Your task to perform on an android device: Go to internet settings Image 0: 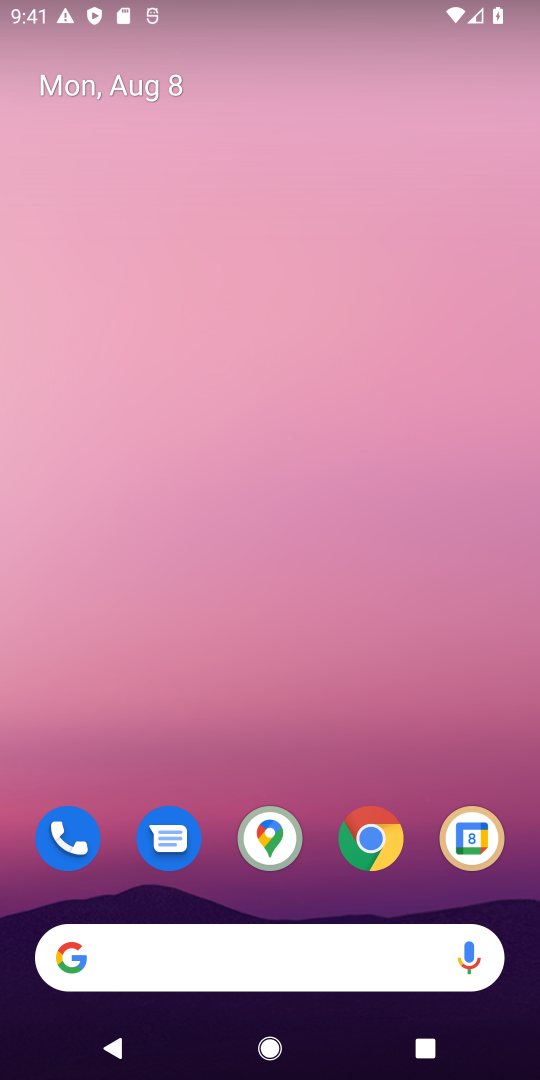
Step 0: press home button
Your task to perform on an android device: Go to internet settings Image 1: 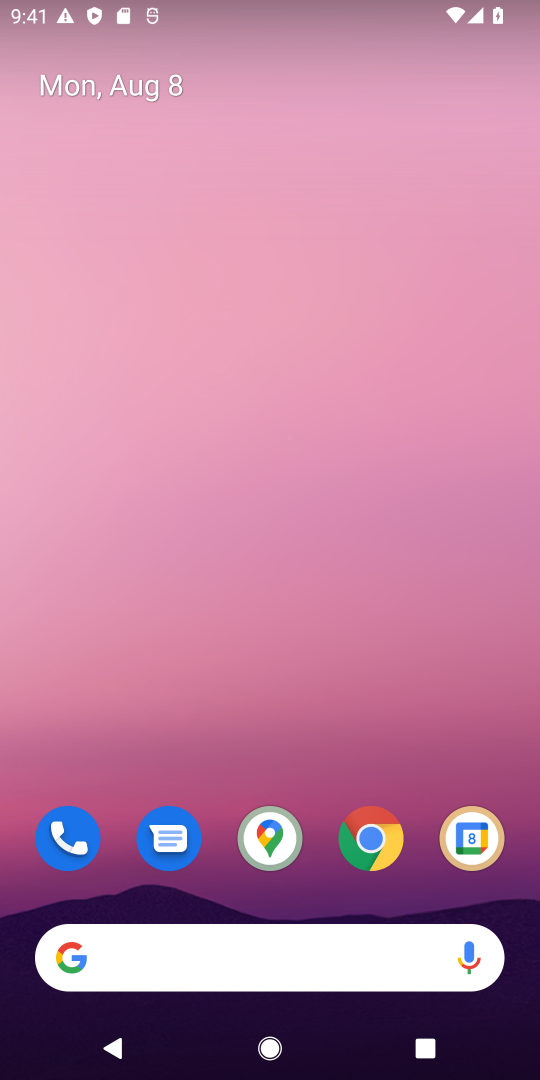
Step 1: drag from (331, 701) to (340, 122)
Your task to perform on an android device: Go to internet settings Image 2: 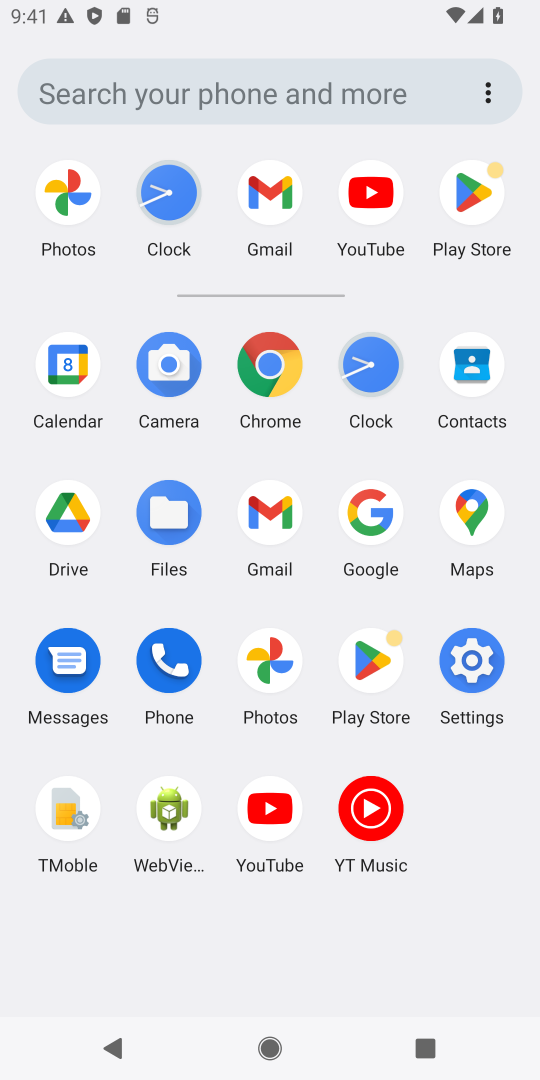
Step 2: click (470, 660)
Your task to perform on an android device: Go to internet settings Image 3: 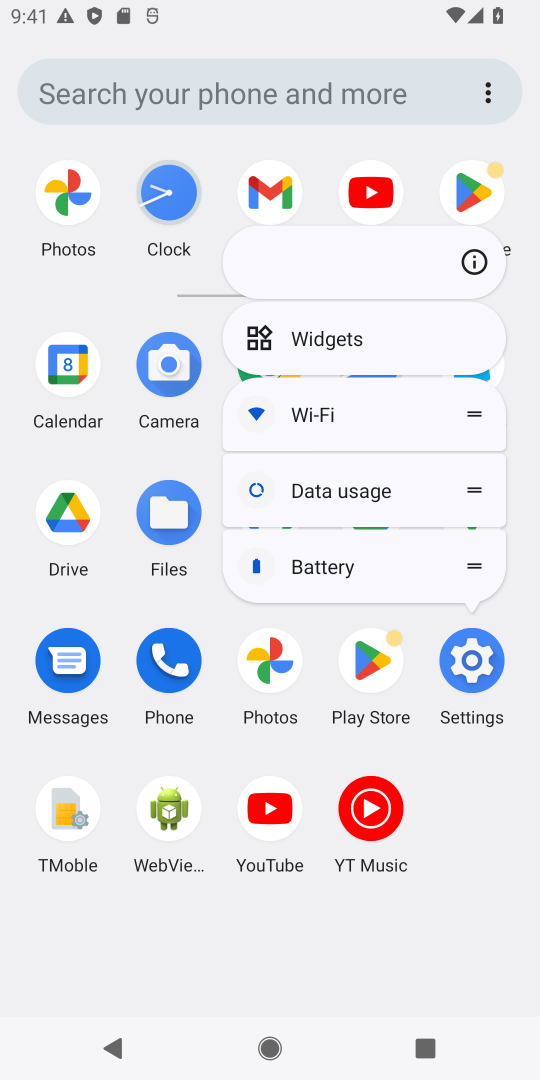
Step 3: click (471, 659)
Your task to perform on an android device: Go to internet settings Image 4: 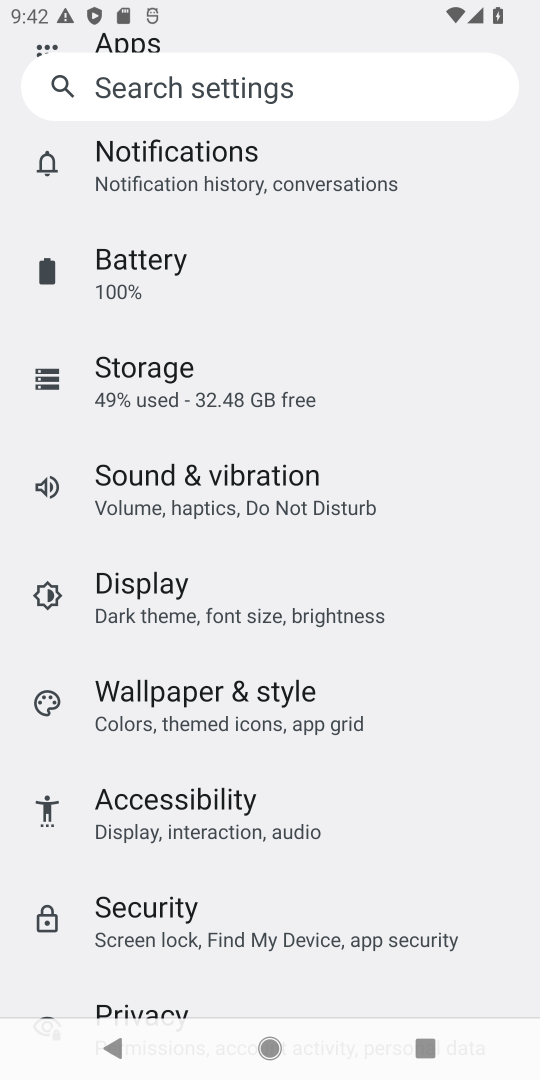
Step 4: drag from (350, 264) to (337, 998)
Your task to perform on an android device: Go to internet settings Image 5: 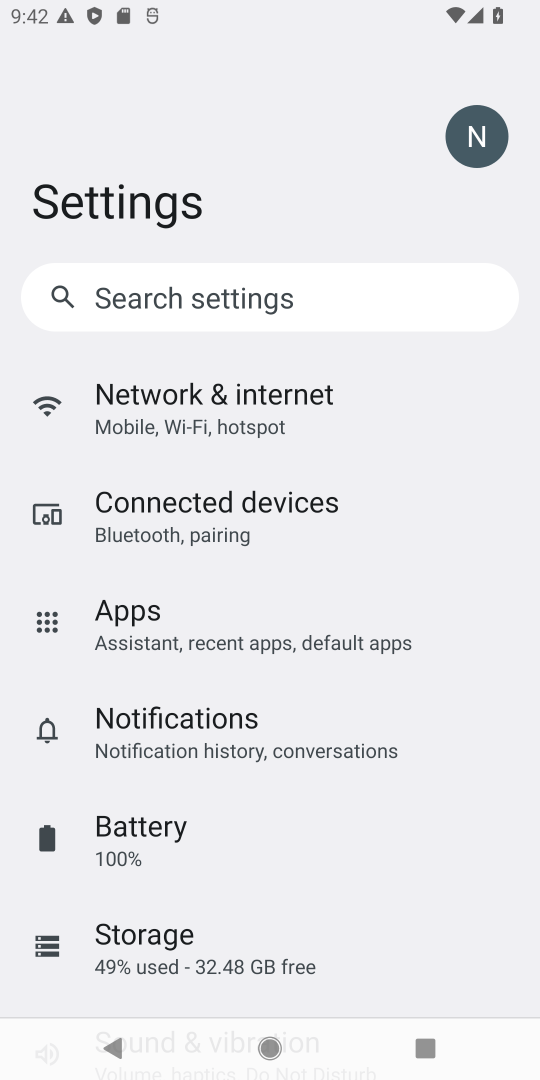
Step 5: click (211, 421)
Your task to perform on an android device: Go to internet settings Image 6: 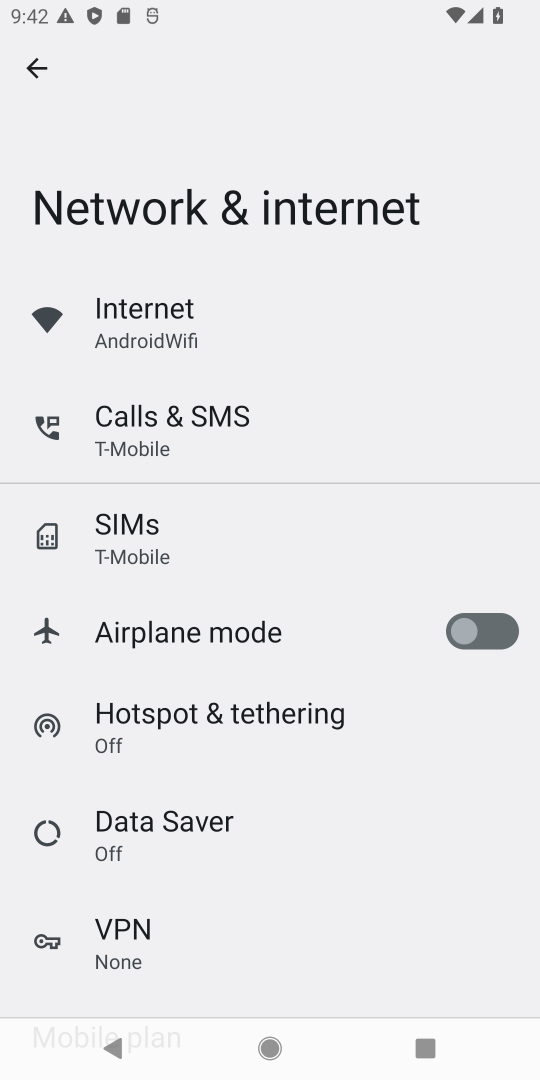
Step 6: task complete